Your task to perform on an android device: turn pop-ups on in chrome Image 0: 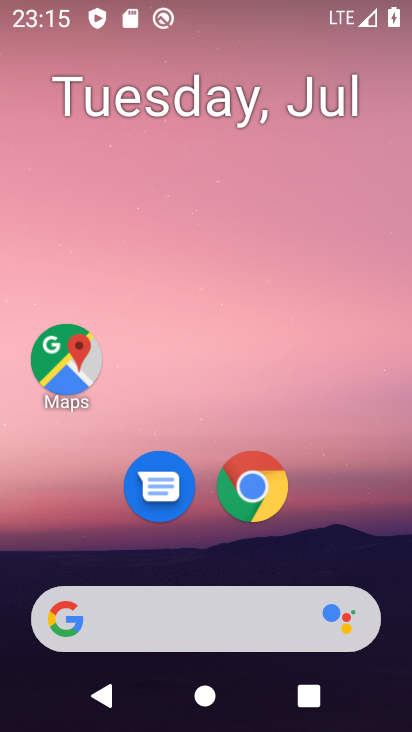
Step 0: drag from (341, 455) to (365, 138)
Your task to perform on an android device: turn pop-ups on in chrome Image 1: 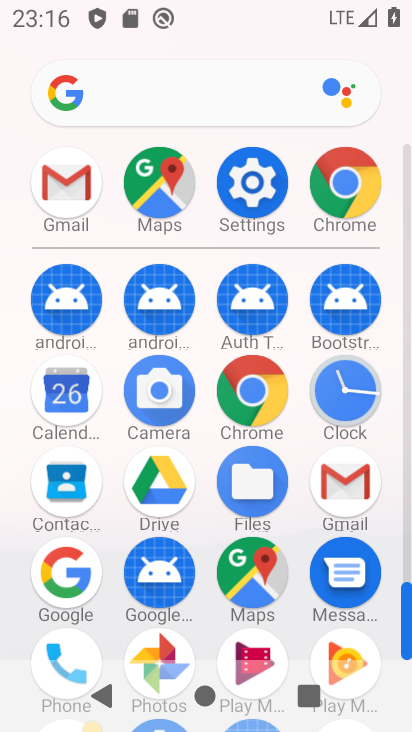
Step 1: click (230, 400)
Your task to perform on an android device: turn pop-ups on in chrome Image 2: 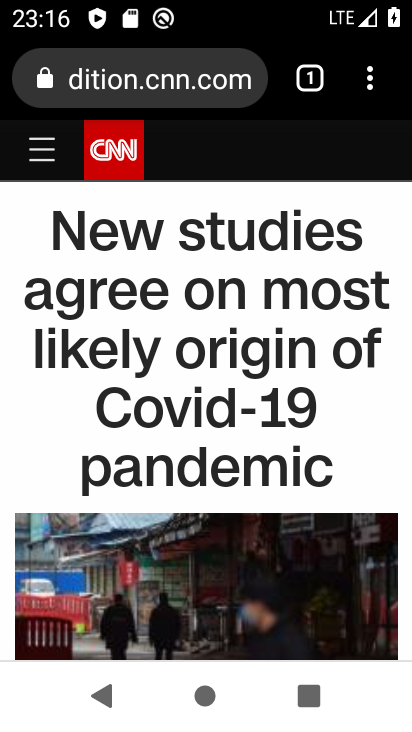
Step 2: click (370, 87)
Your task to perform on an android device: turn pop-ups on in chrome Image 3: 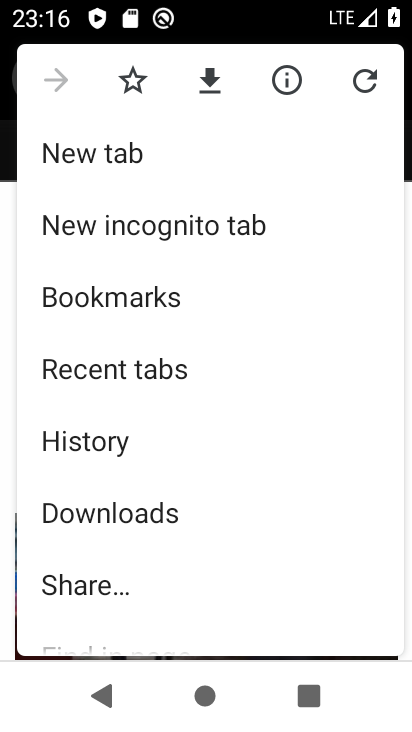
Step 3: drag from (237, 456) to (264, 371)
Your task to perform on an android device: turn pop-ups on in chrome Image 4: 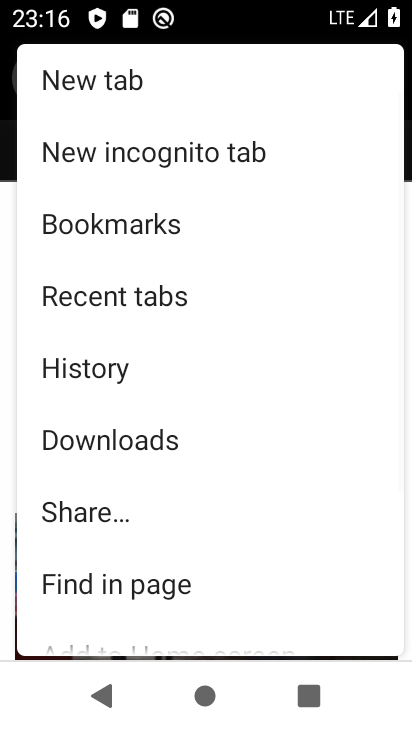
Step 4: drag from (300, 456) to (294, 384)
Your task to perform on an android device: turn pop-ups on in chrome Image 5: 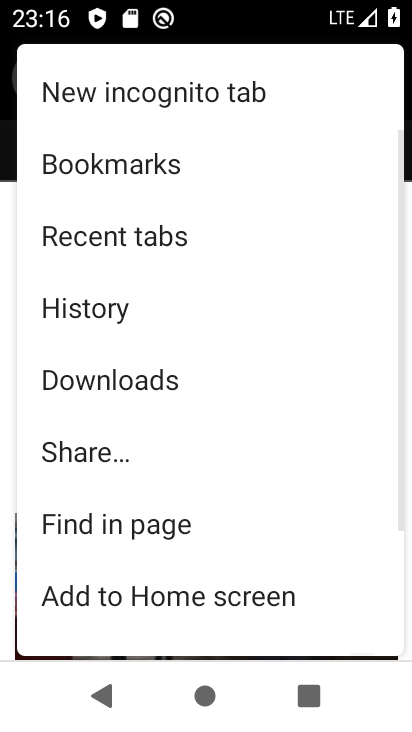
Step 5: drag from (273, 453) to (262, 368)
Your task to perform on an android device: turn pop-ups on in chrome Image 6: 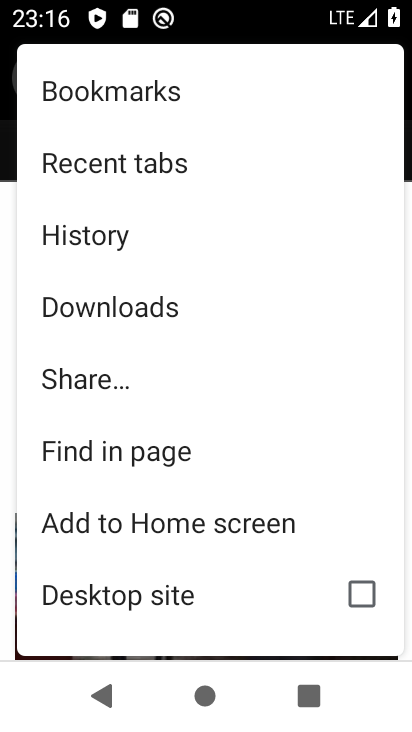
Step 6: drag from (255, 399) to (255, 295)
Your task to perform on an android device: turn pop-ups on in chrome Image 7: 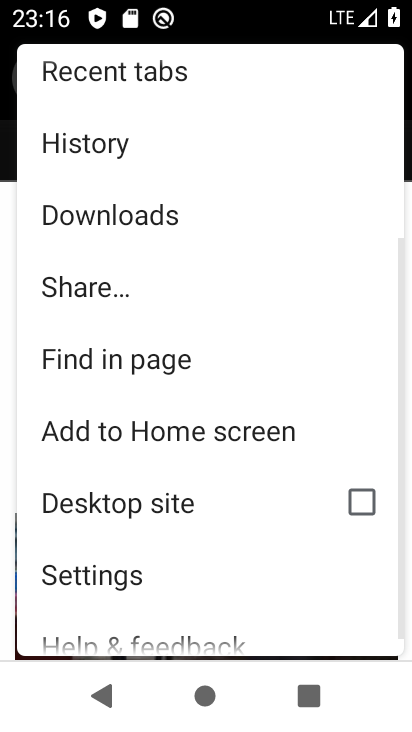
Step 7: drag from (284, 401) to (271, 311)
Your task to perform on an android device: turn pop-ups on in chrome Image 8: 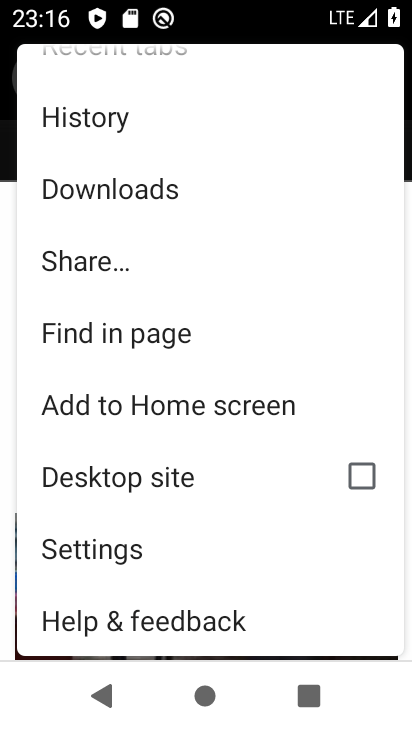
Step 8: drag from (273, 492) to (250, 400)
Your task to perform on an android device: turn pop-ups on in chrome Image 9: 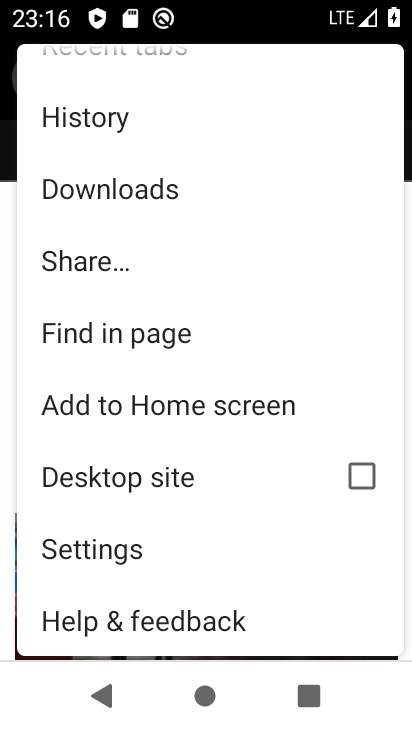
Step 9: click (158, 557)
Your task to perform on an android device: turn pop-ups on in chrome Image 10: 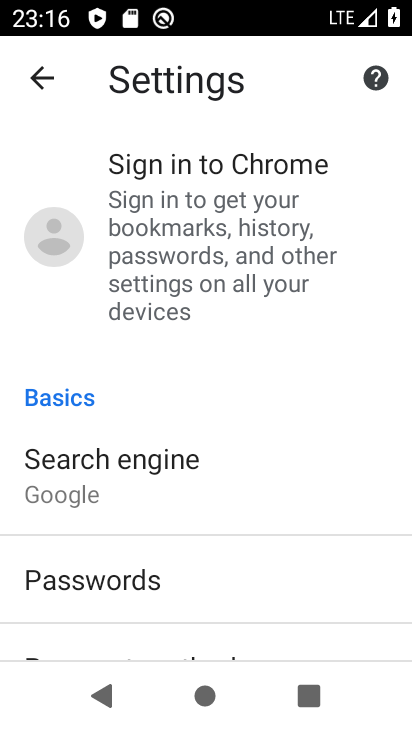
Step 10: drag from (302, 525) to (302, 455)
Your task to perform on an android device: turn pop-ups on in chrome Image 11: 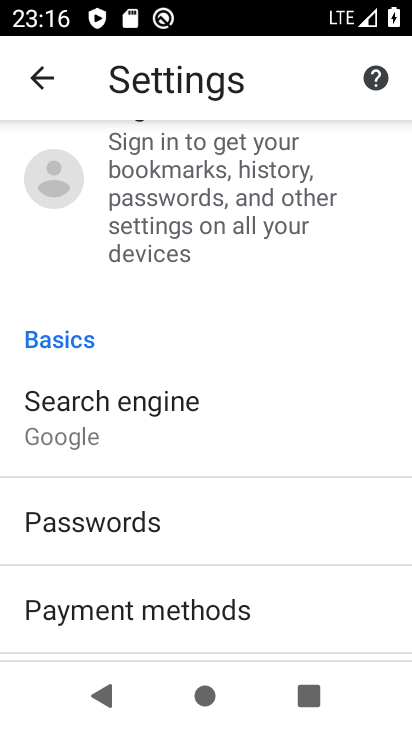
Step 11: drag from (315, 519) to (299, 448)
Your task to perform on an android device: turn pop-ups on in chrome Image 12: 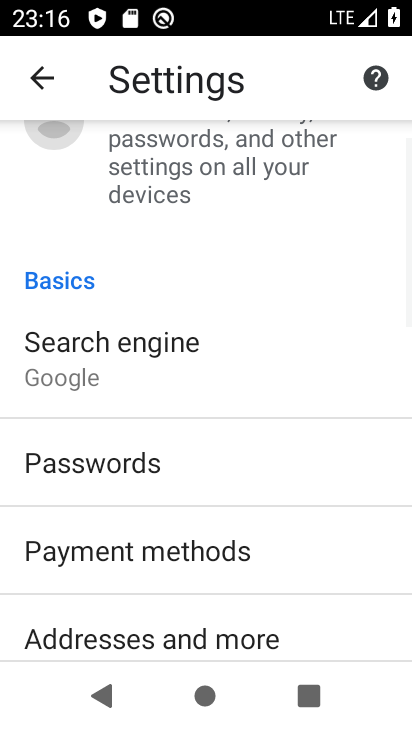
Step 12: drag from (284, 525) to (261, 452)
Your task to perform on an android device: turn pop-ups on in chrome Image 13: 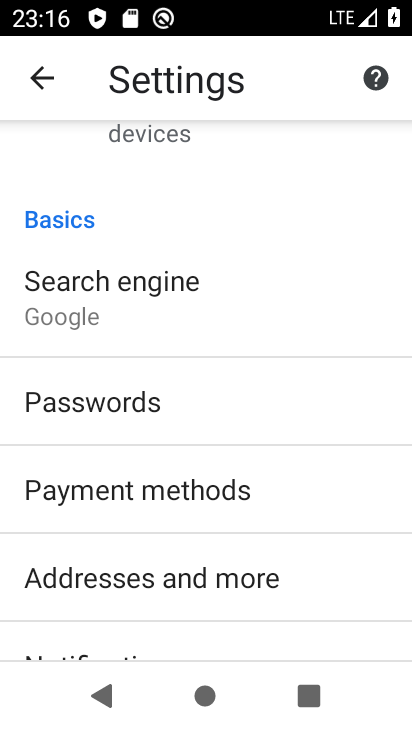
Step 13: drag from (290, 525) to (278, 420)
Your task to perform on an android device: turn pop-ups on in chrome Image 14: 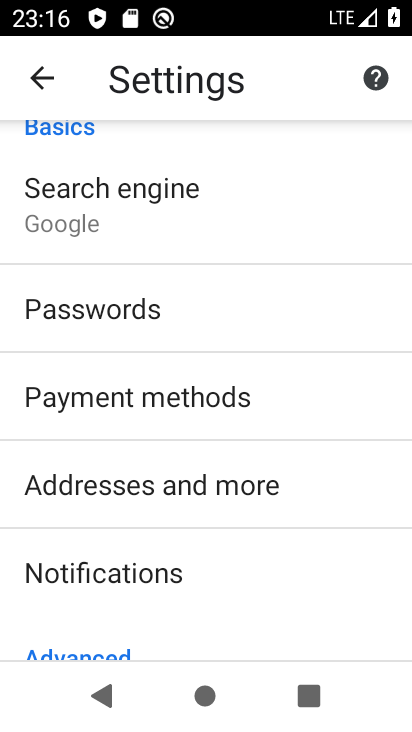
Step 14: drag from (320, 475) to (304, 404)
Your task to perform on an android device: turn pop-ups on in chrome Image 15: 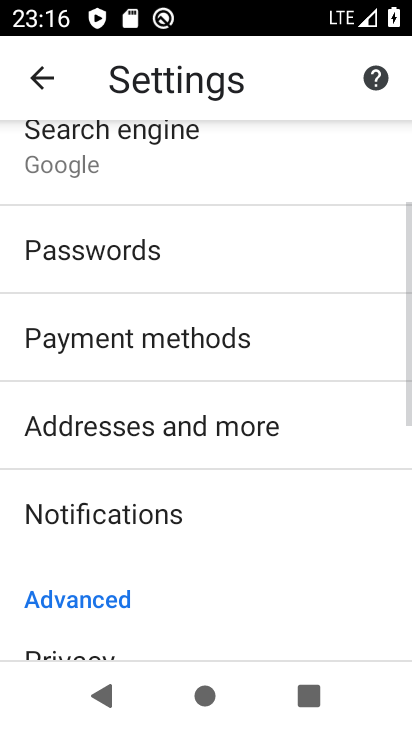
Step 15: drag from (288, 513) to (287, 420)
Your task to perform on an android device: turn pop-ups on in chrome Image 16: 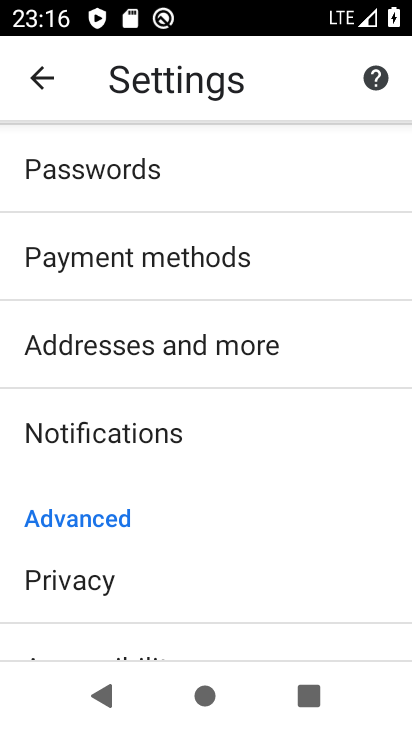
Step 16: drag from (278, 512) to (288, 426)
Your task to perform on an android device: turn pop-ups on in chrome Image 17: 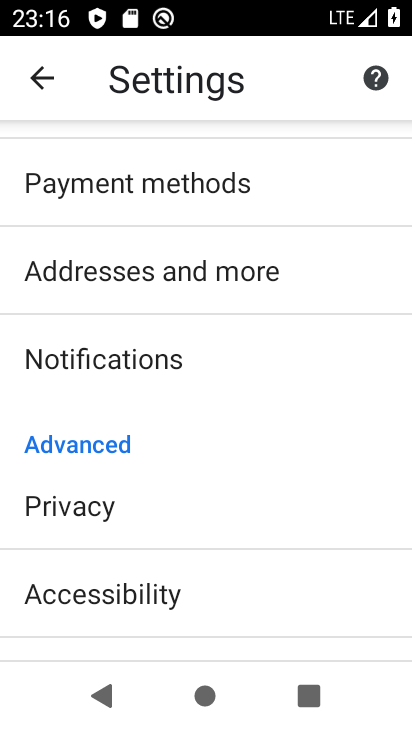
Step 17: drag from (262, 516) to (253, 440)
Your task to perform on an android device: turn pop-ups on in chrome Image 18: 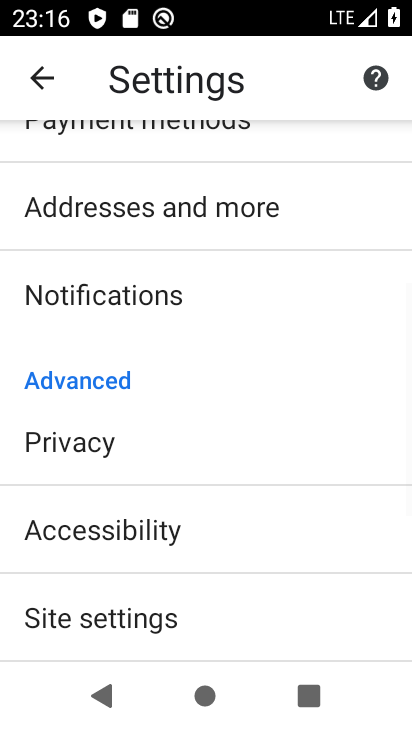
Step 18: drag from (239, 514) to (237, 454)
Your task to perform on an android device: turn pop-ups on in chrome Image 19: 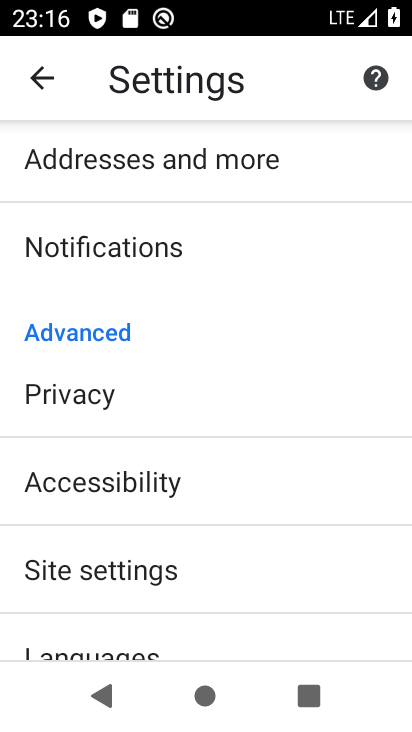
Step 19: drag from (242, 496) to (243, 414)
Your task to perform on an android device: turn pop-ups on in chrome Image 20: 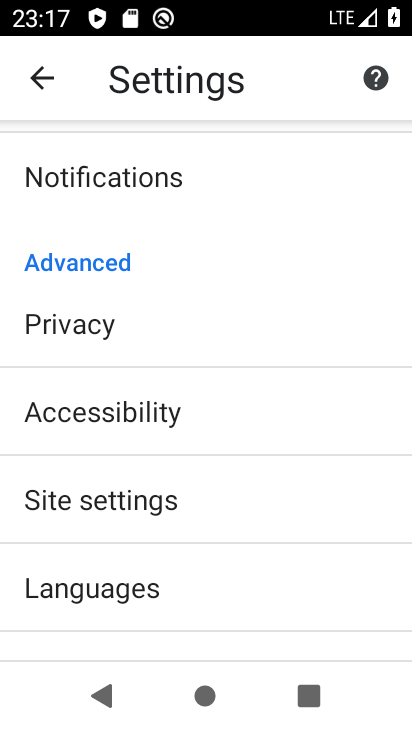
Step 20: drag from (252, 529) to (256, 445)
Your task to perform on an android device: turn pop-ups on in chrome Image 21: 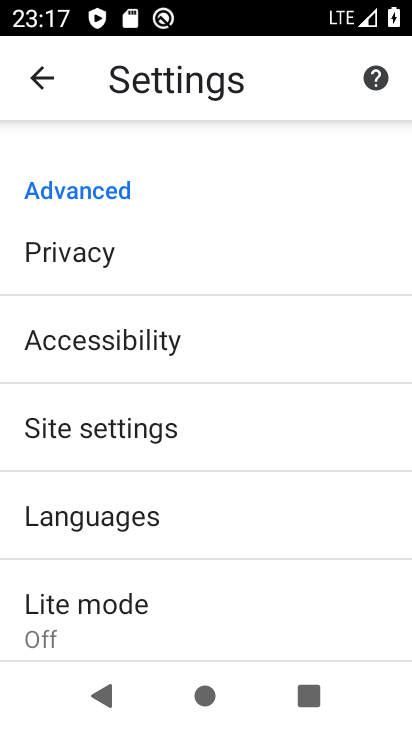
Step 21: drag from (249, 533) to (249, 453)
Your task to perform on an android device: turn pop-ups on in chrome Image 22: 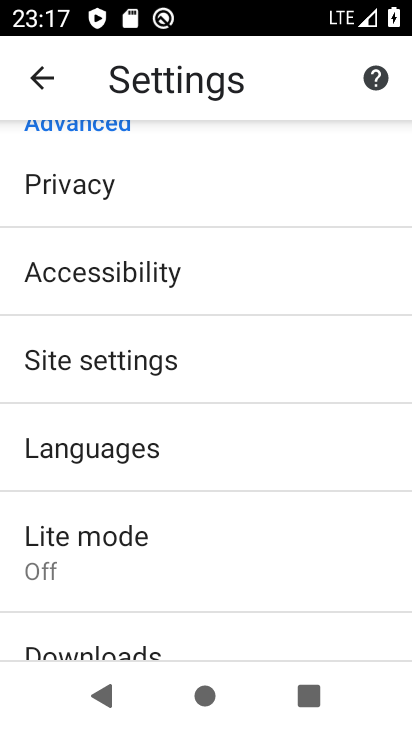
Step 22: click (239, 367)
Your task to perform on an android device: turn pop-ups on in chrome Image 23: 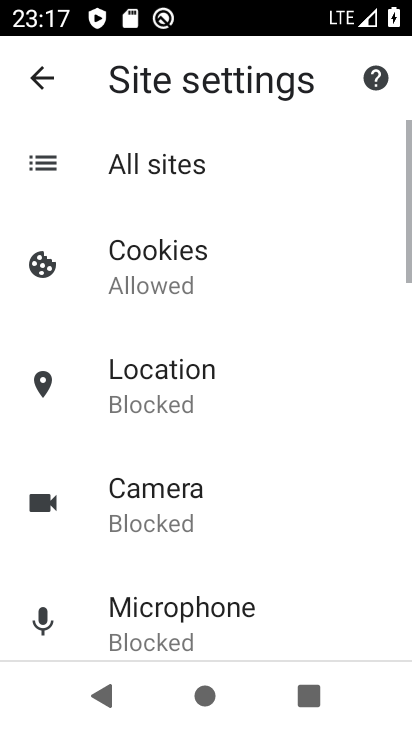
Step 23: drag from (307, 481) to (302, 403)
Your task to perform on an android device: turn pop-ups on in chrome Image 24: 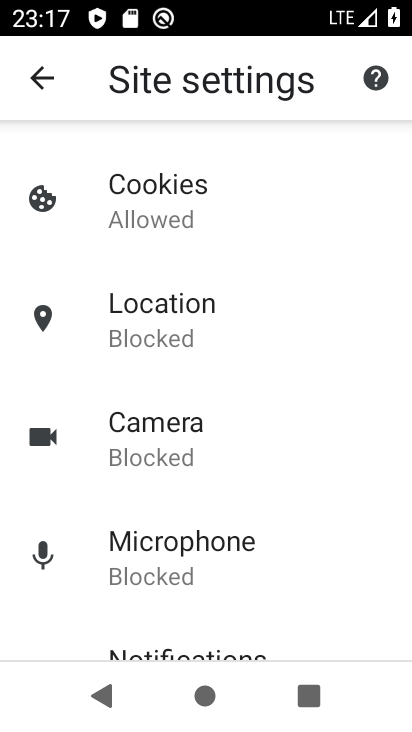
Step 24: drag from (310, 484) to (312, 405)
Your task to perform on an android device: turn pop-ups on in chrome Image 25: 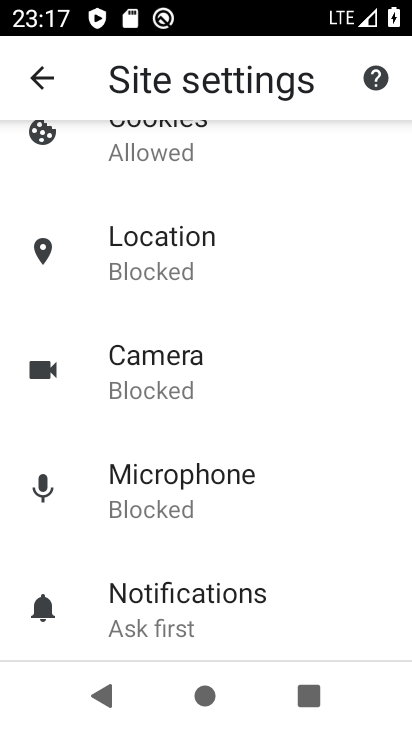
Step 25: drag from (311, 483) to (311, 386)
Your task to perform on an android device: turn pop-ups on in chrome Image 26: 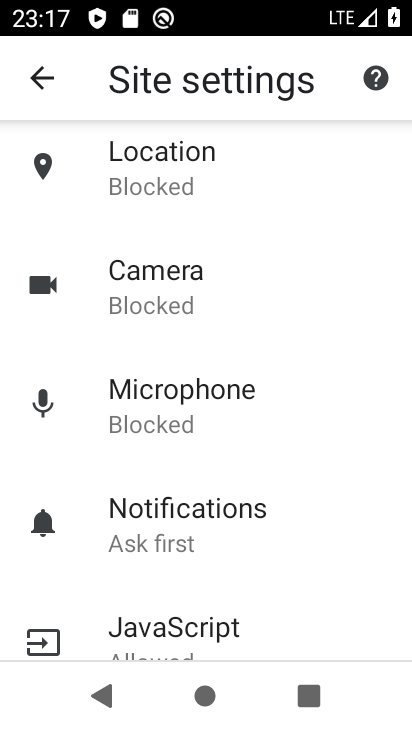
Step 26: drag from (313, 514) to (310, 403)
Your task to perform on an android device: turn pop-ups on in chrome Image 27: 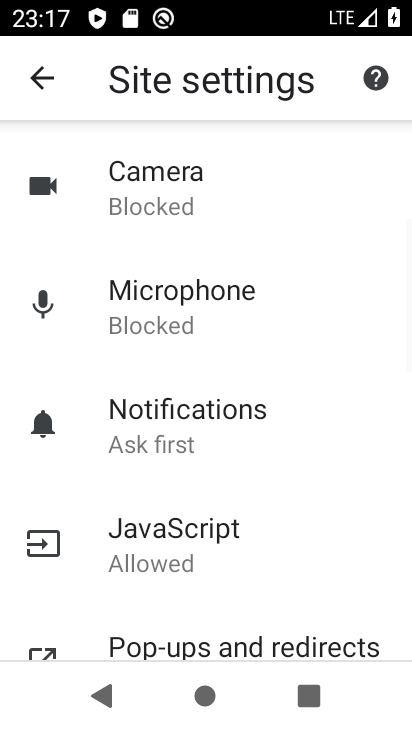
Step 27: drag from (307, 515) to (305, 424)
Your task to perform on an android device: turn pop-ups on in chrome Image 28: 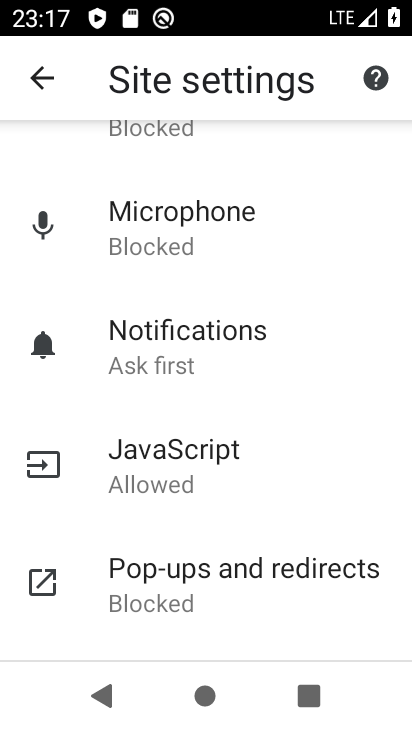
Step 28: drag from (285, 535) to (283, 421)
Your task to perform on an android device: turn pop-ups on in chrome Image 29: 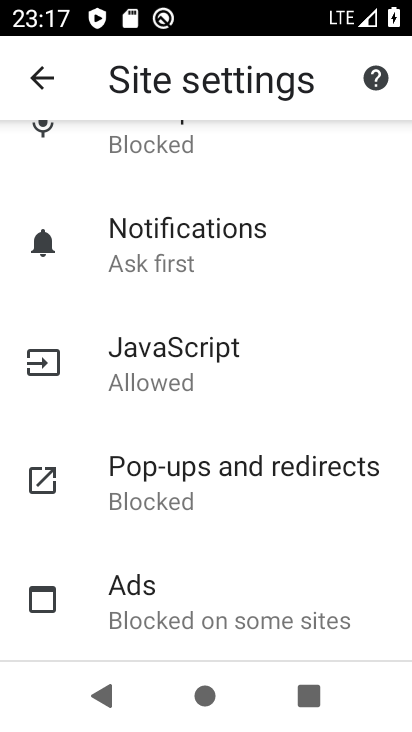
Step 29: drag from (283, 519) to (283, 440)
Your task to perform on an android device: turn pop-ups on in chrome Image 30: 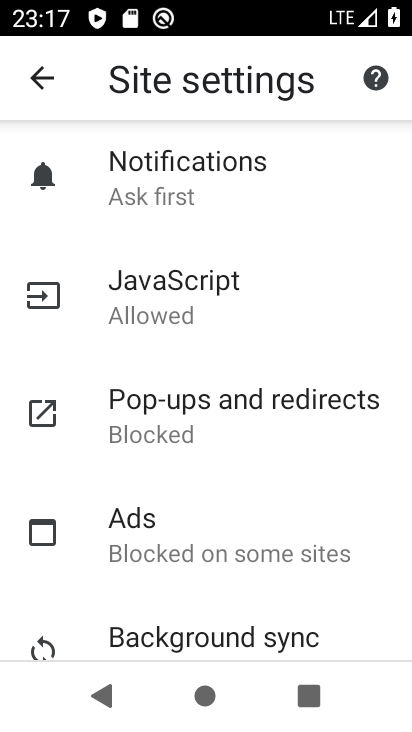
Step 30: click (283, 436)
Your task to perform on an android device: turn pop-ups on in chrome Image 31: 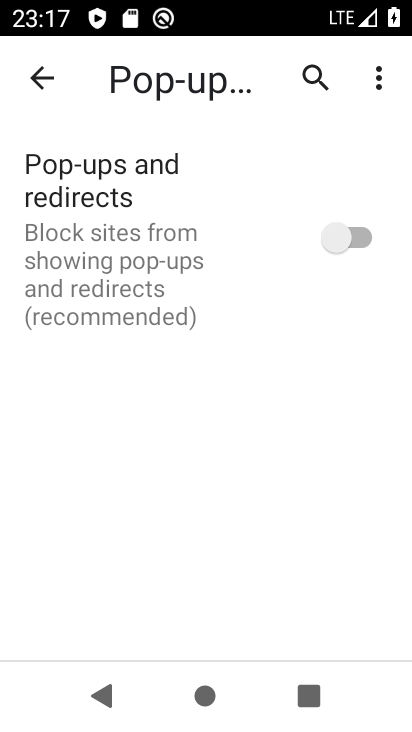
Step 31: click (342, 239)
Your task to perform on an android device: turn pop-ups on in chrome Image 32: 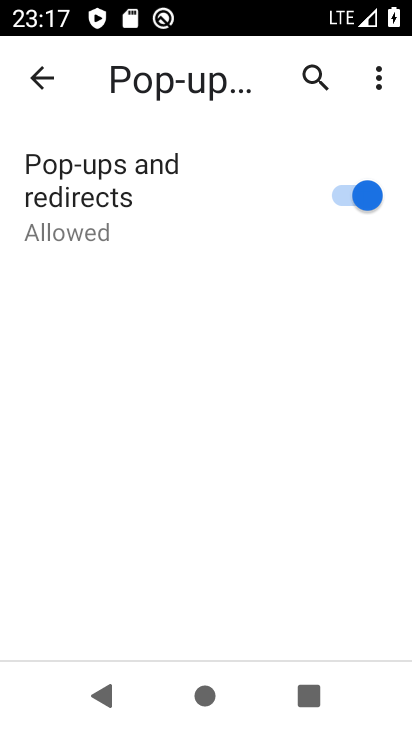
Step 32: task complete